Your task to perform on an android device: open device folders in google photos Image 0: 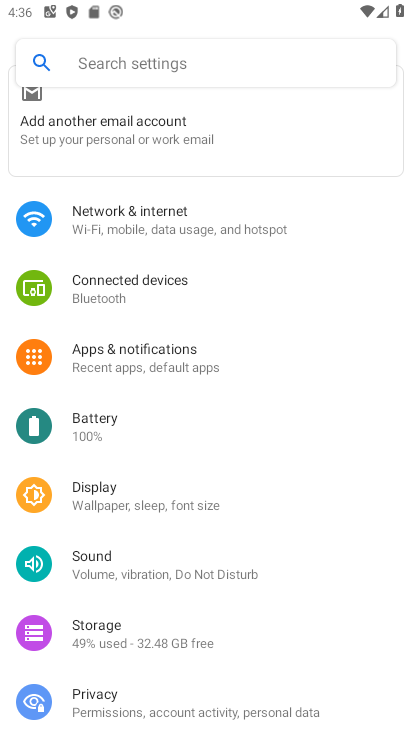
Step 0: press home button
Your task to perform on an android device: open device folders in google photos Image 1: 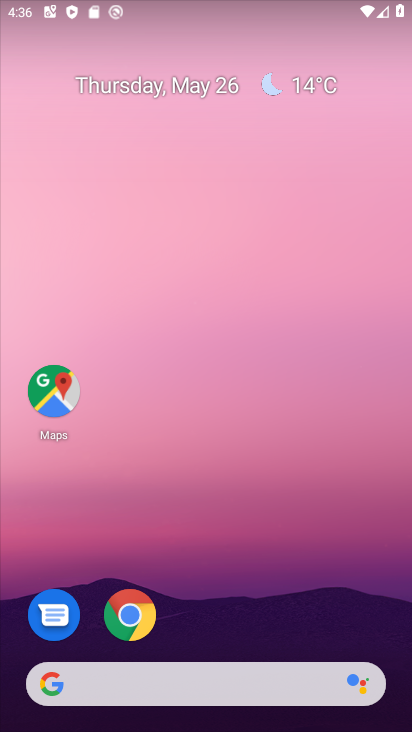
Step 1: drag from (264, 536) to (283, 149)
Your task to perform on an android device: open device folders in google photos Image 2: 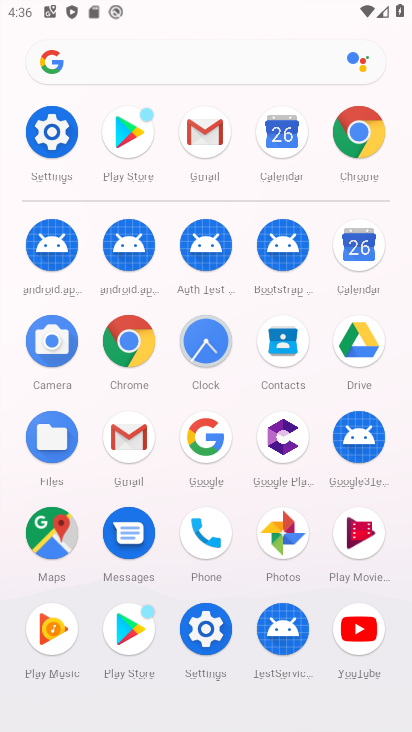
Step 2: click (270, 534)
Your task to perform on an android device: open device folders in google photos Image 3: 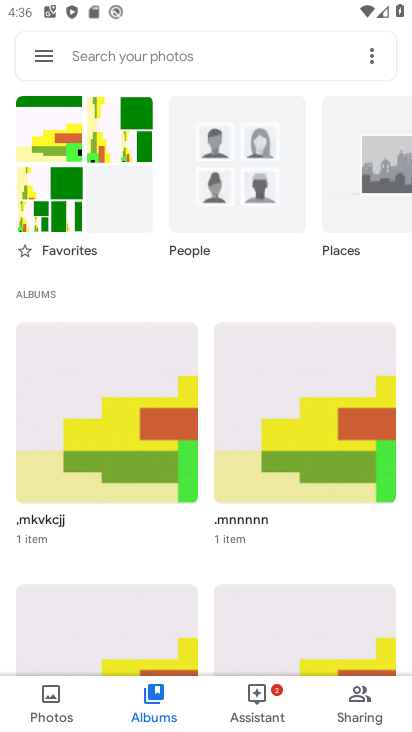
Step 3: click (45, 44)
Your task to perform on an android device: open device folders in google photos Image 4: 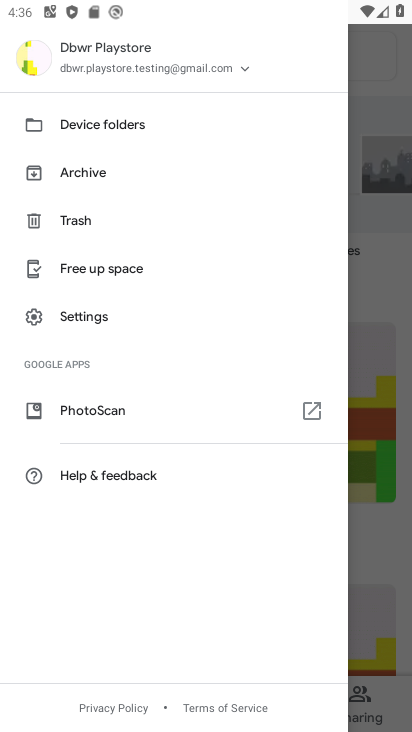
Step 4: click (79, 130)
Your task to perform on an android device: open device folders in google photos Image 5: 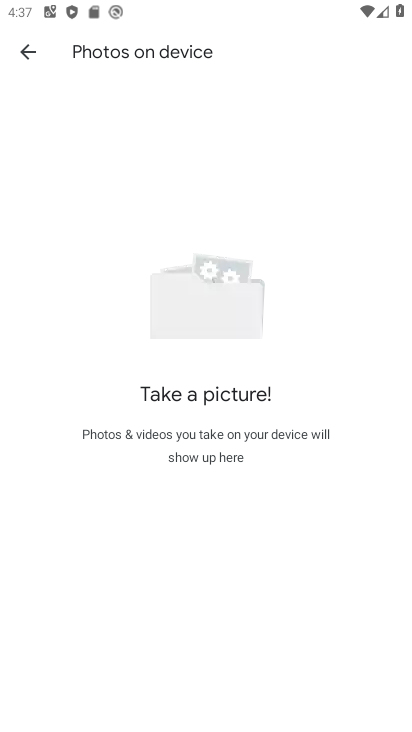
Step 5: task complete